Your task to perform on an android device: turn off notifications settings in the gmail app Image 0: 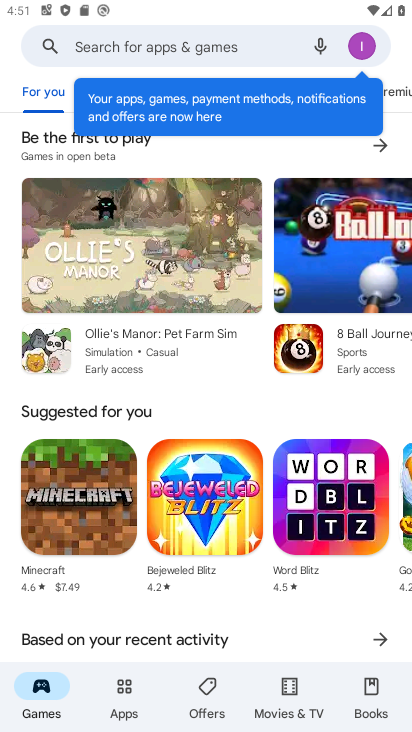
Step 0: press home button
Your task to perform on an android device: turn off notifications settings in the gmail app Image 1: 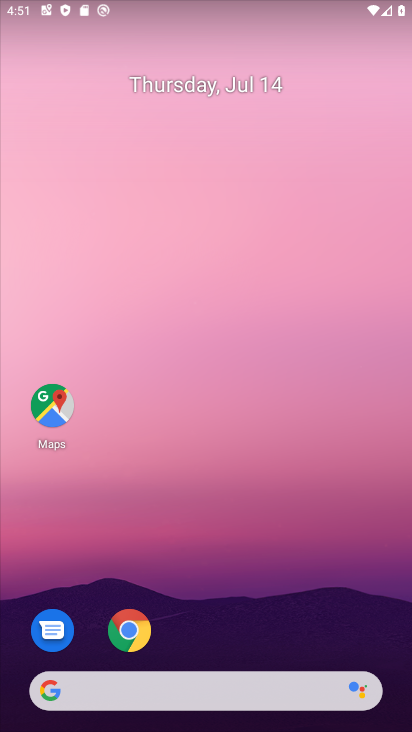
Step 1: drag from (200, 717) to (261, 91)
Your task to perform on an android device: turn off notifications settings in the gmail app Image 2: 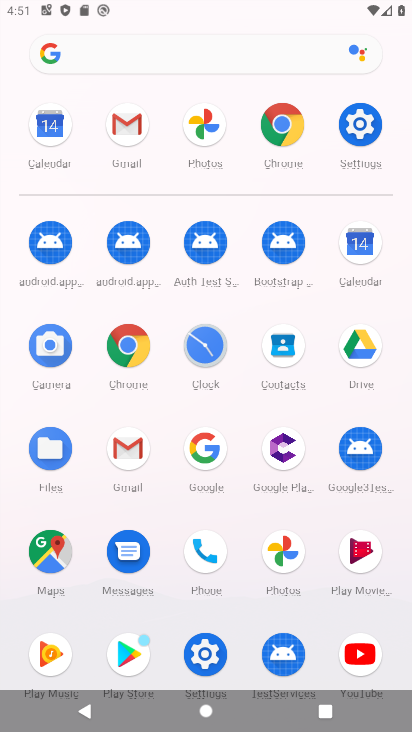
Step 2: click (117, 458)
Your task to perform on an android device: turn off notifications settings in the gmail app Image 3: 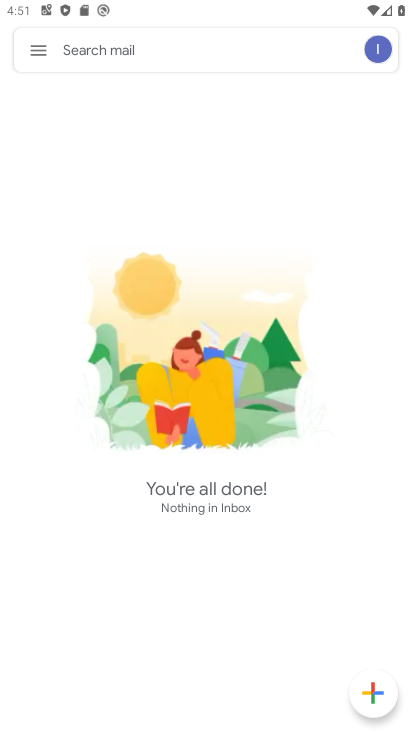
Step 3: click (21, 54)
Your task to perform on an android device: turn off notifications settings in the gmail app Image 4: 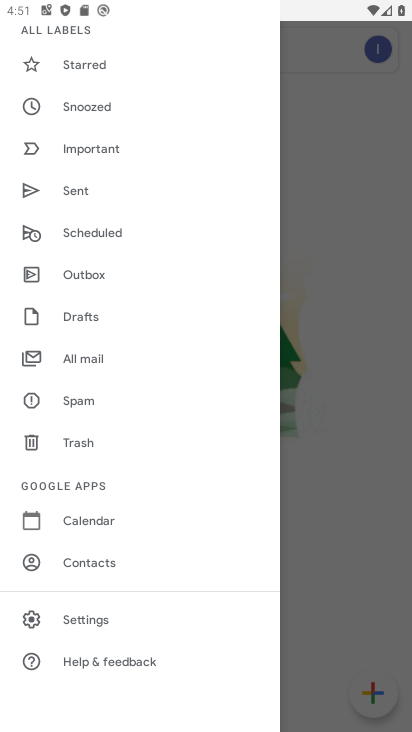
Step 4: click (94, 622)
Your task to perform on an android device: turn off notifications settings in the gmail app Image 5: 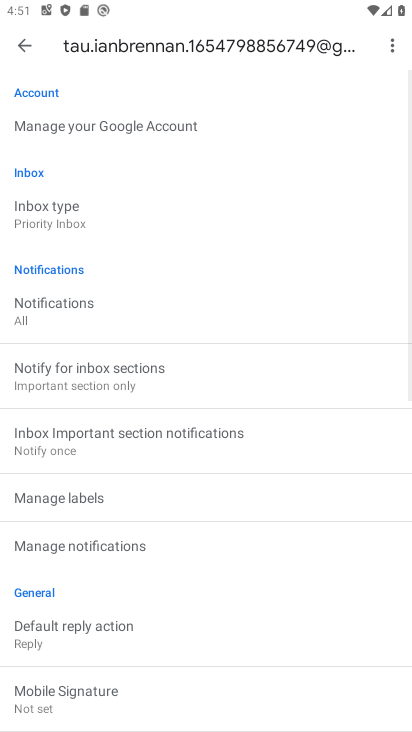
Step 5: click (86, 551)
Your task to perform on an android device: turn off notifications settings in the gmail app Image 6: 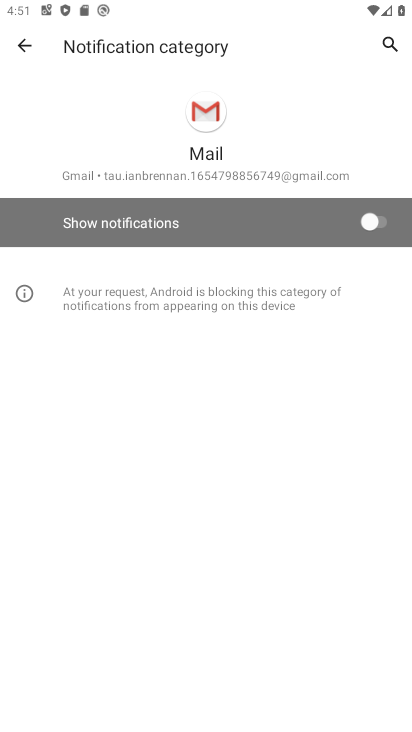
Step 6: task complete